Your task to perform on an android device: open app "Google Photos" (install if not already installed) Image 0: 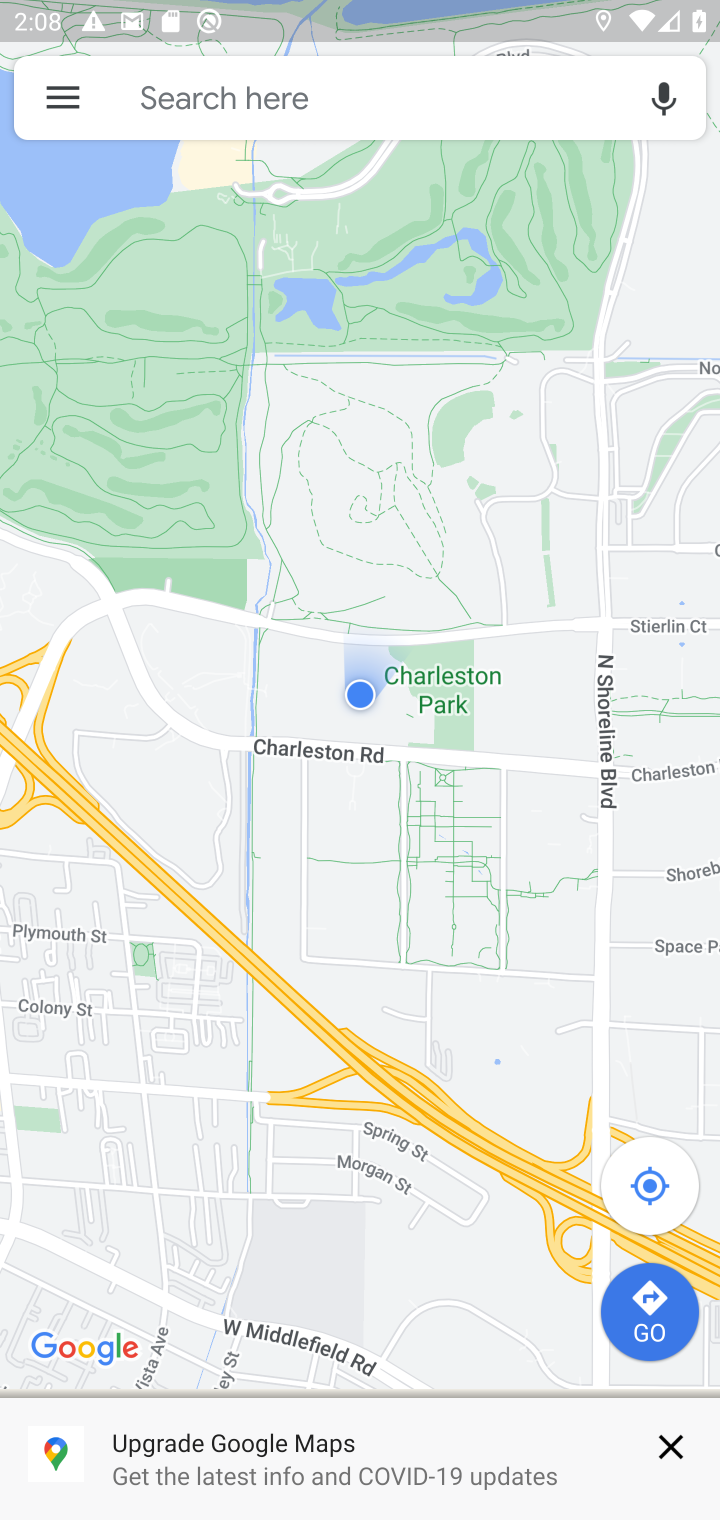
Step 0: press home button
Your task to perform on an android device: open app "Google Photos" (install if not already installed) Image 1: 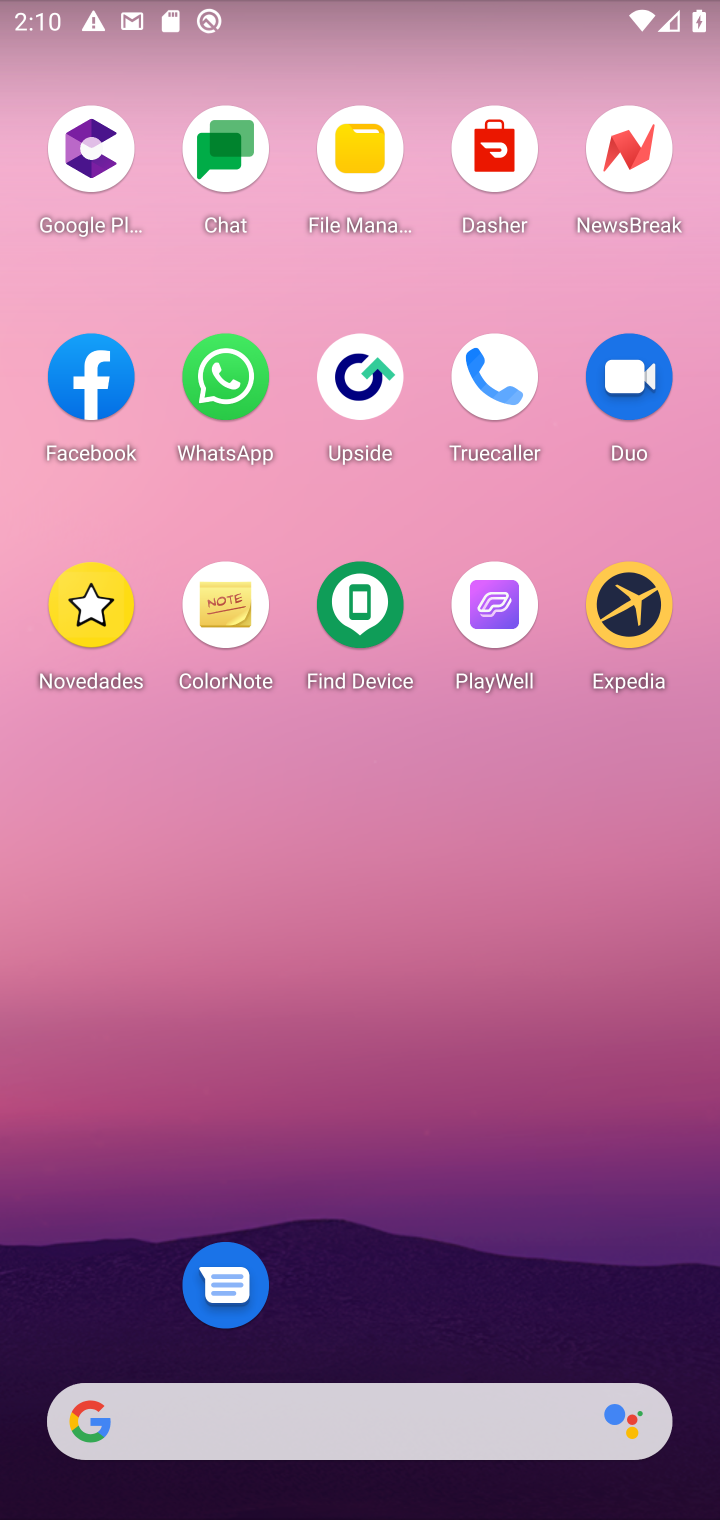
Step 1: drag from (501, 1223) to (399, 477)
Your task to perform on an android device: open app "Google Photos" (install if not already installed) Image 2: 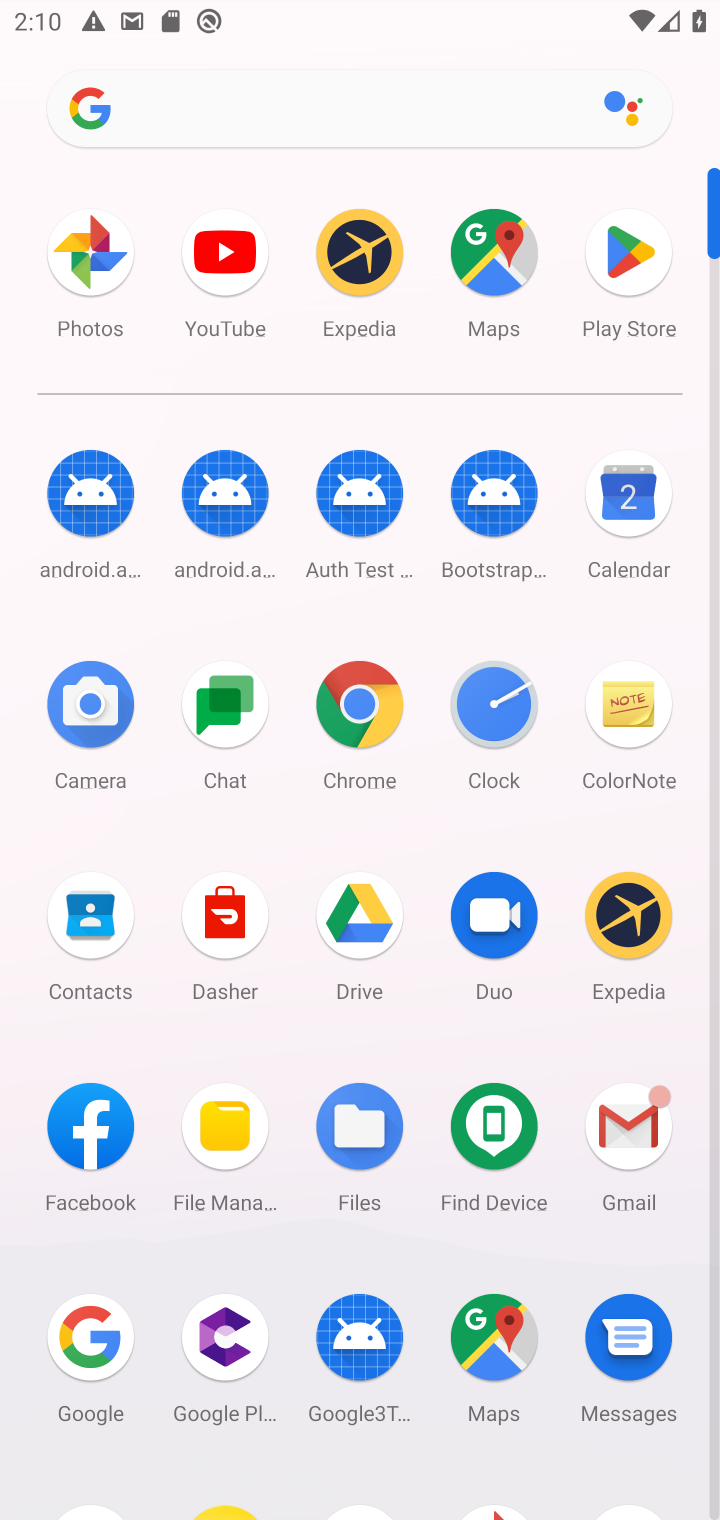
Step 2: click (630, 244)
Your task to perform on an android device: open app "Google Photos" (install if not already installed) Image 3: 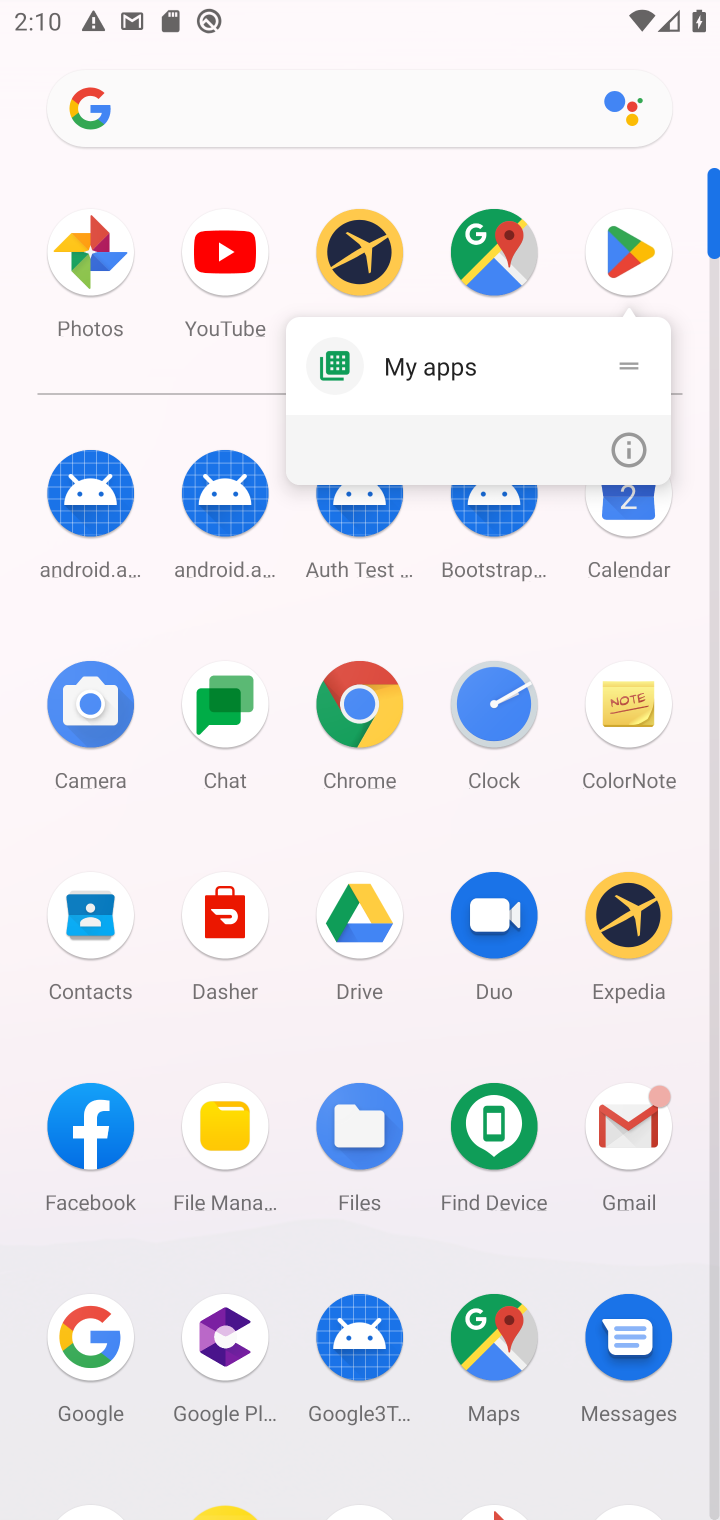
Step 3: click (630, 244)
Your task to perform on an android device: open app "Google Photos" (install if not already installed) Image 4: 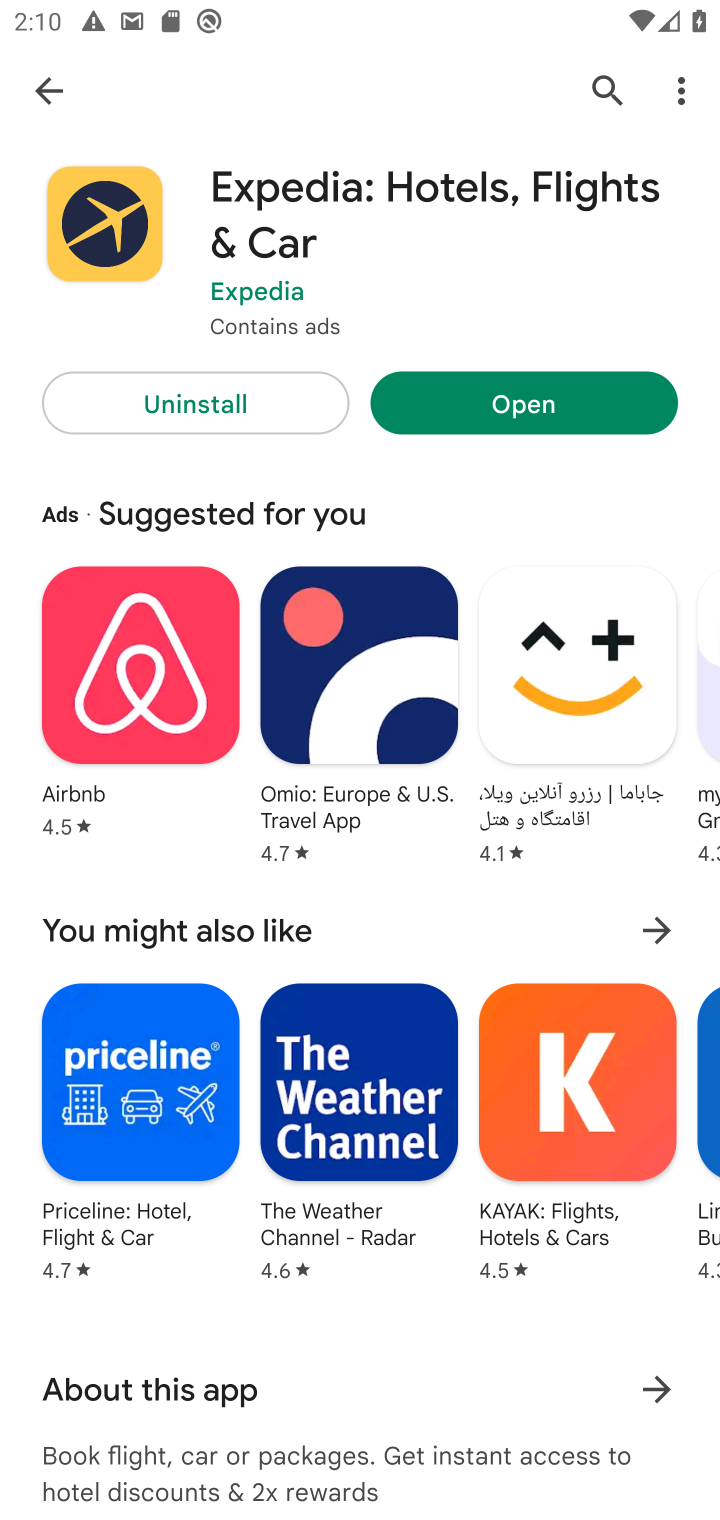
Step 4: click (626, 105)
Your task to perform on an android device: open app "Google Photos" (install if not already installed) Image 5: 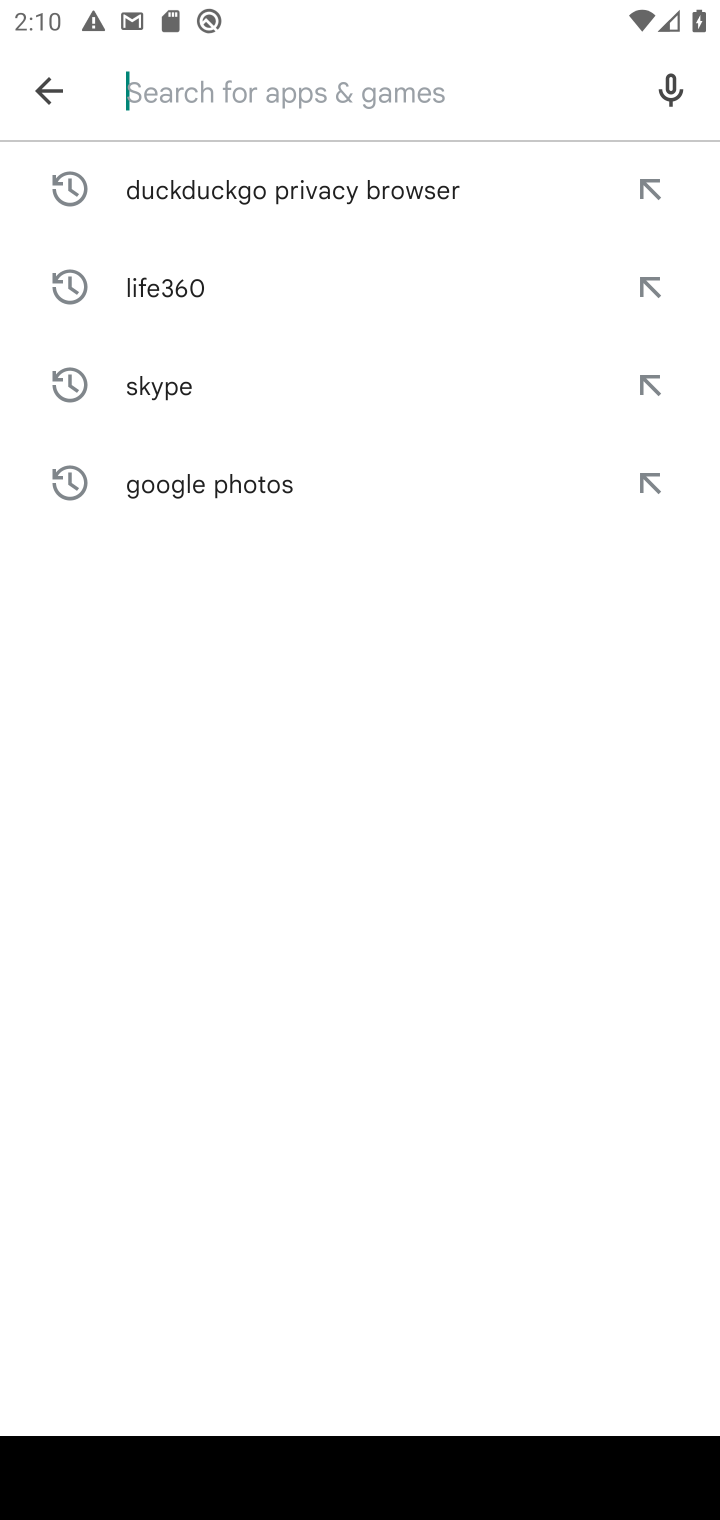
Step 5: click (451, 105)
Your task to perform on an android device: open app "Google Photos" (install if not already installed) Image 6: 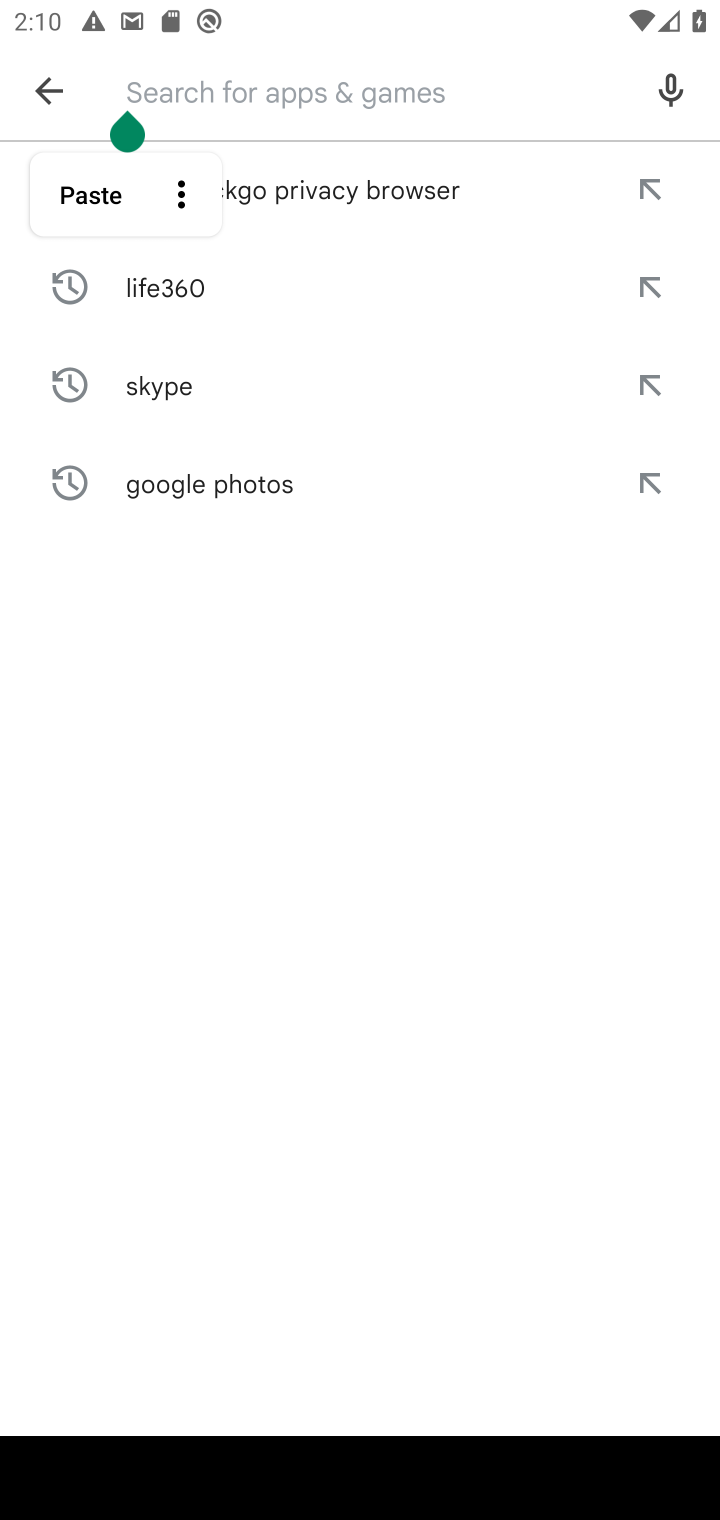
Step 6: type "Google Photos"
Your task to perform on an android device: open app "Google Photos" (install if not already installed) Image 7: 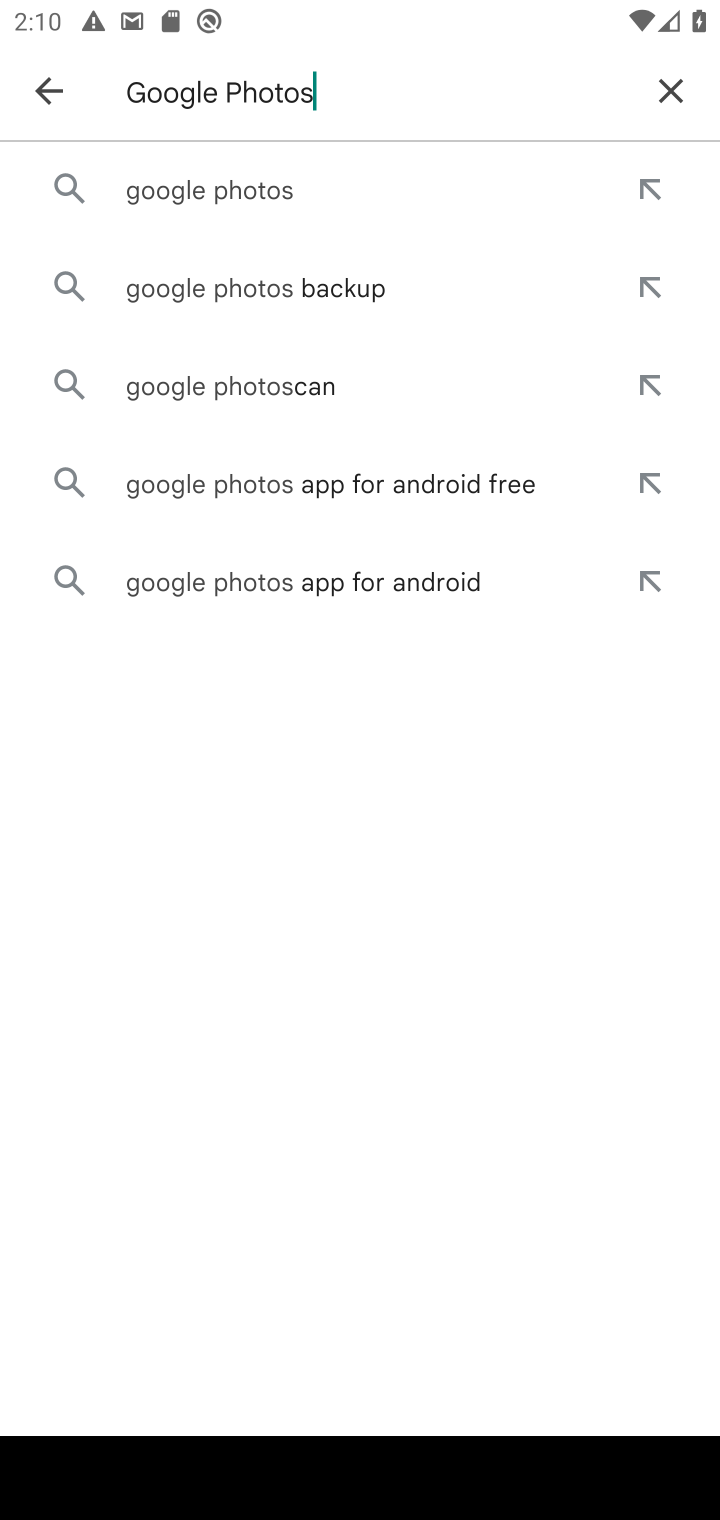
Step 7: type ""
Your task to perform on an android device: open app "Google Photos" (install if not already installed) Image 8: 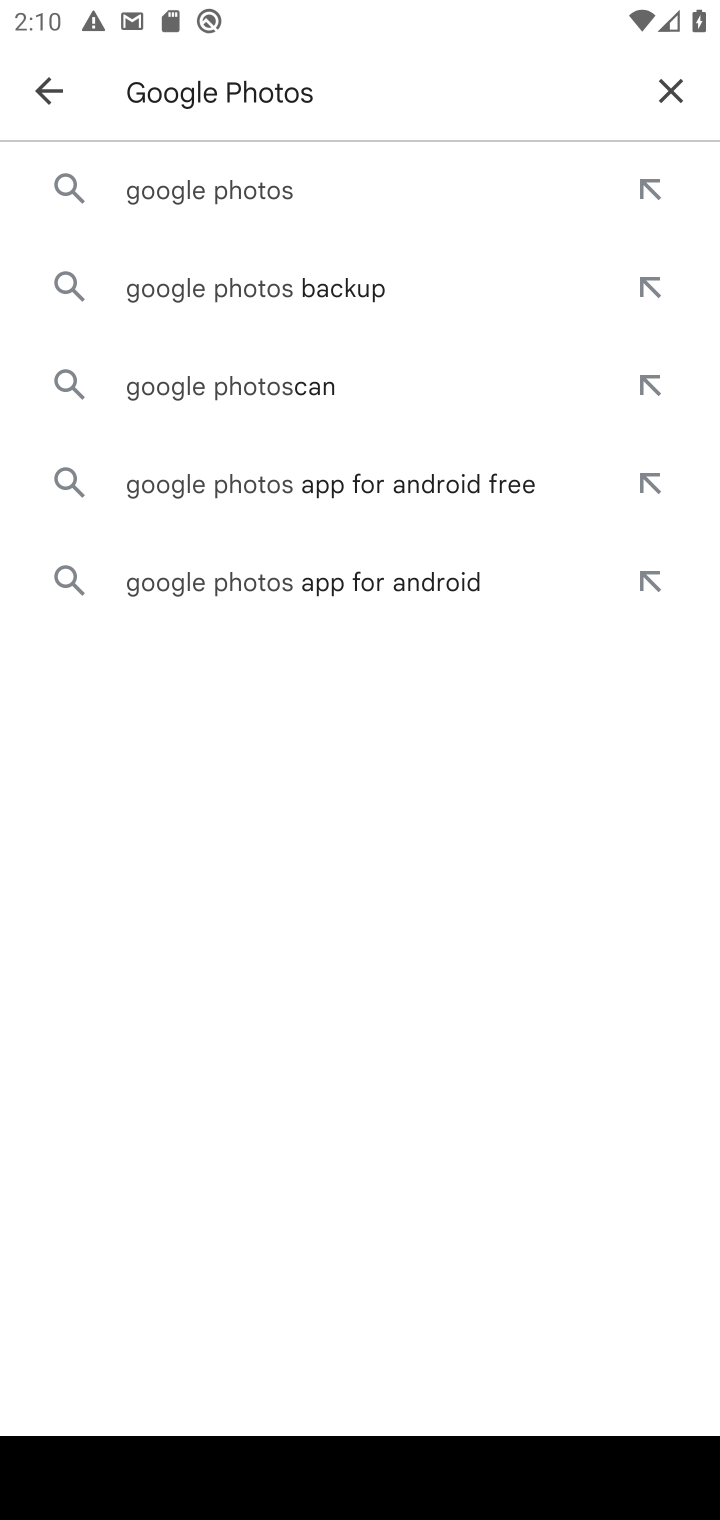
Step 8: click (160, 181)
Your task to perform on an android device: open app "Google Photos" (install if not already installed) Image 9: 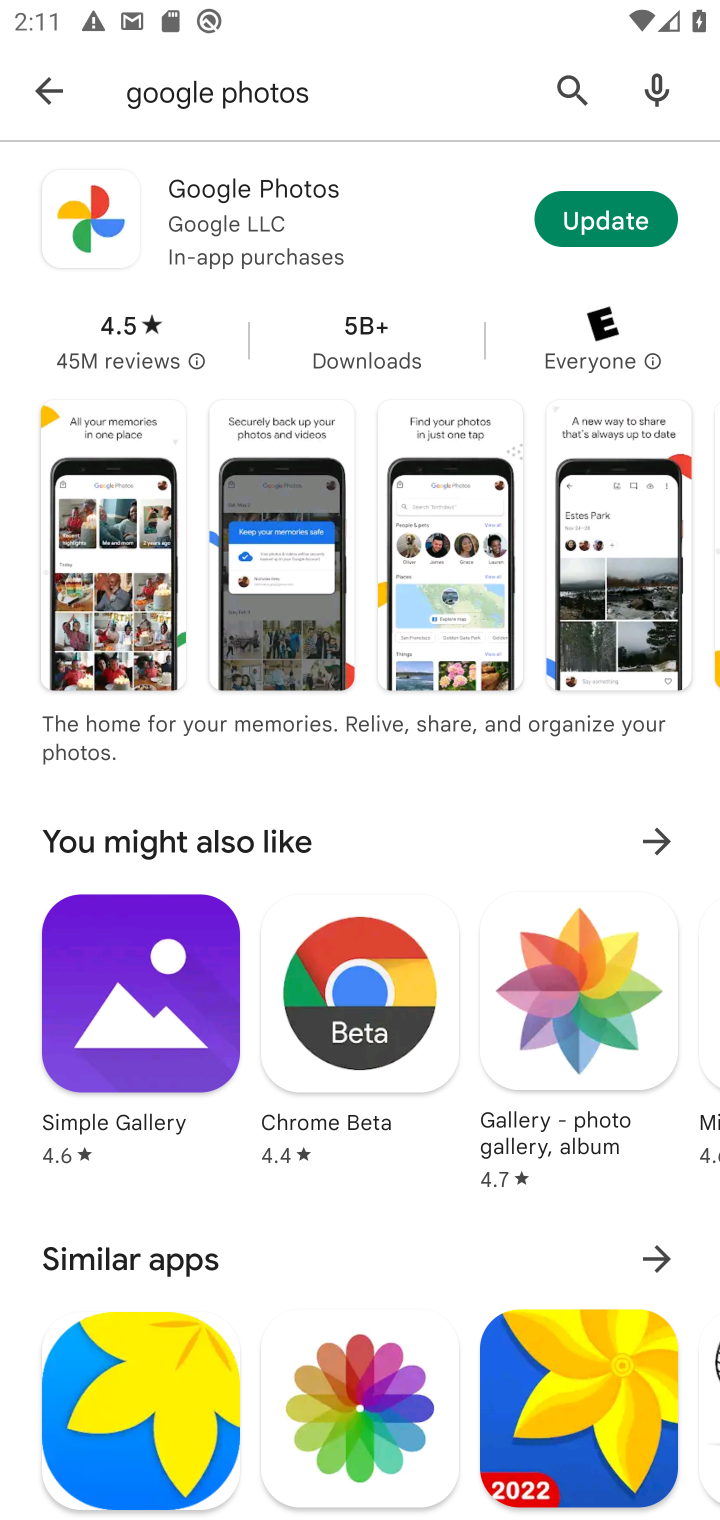
Step 9: click (279, 185)
Your task to perform on an android device: open app "Google Photos" (install if not already installed) Image 10: 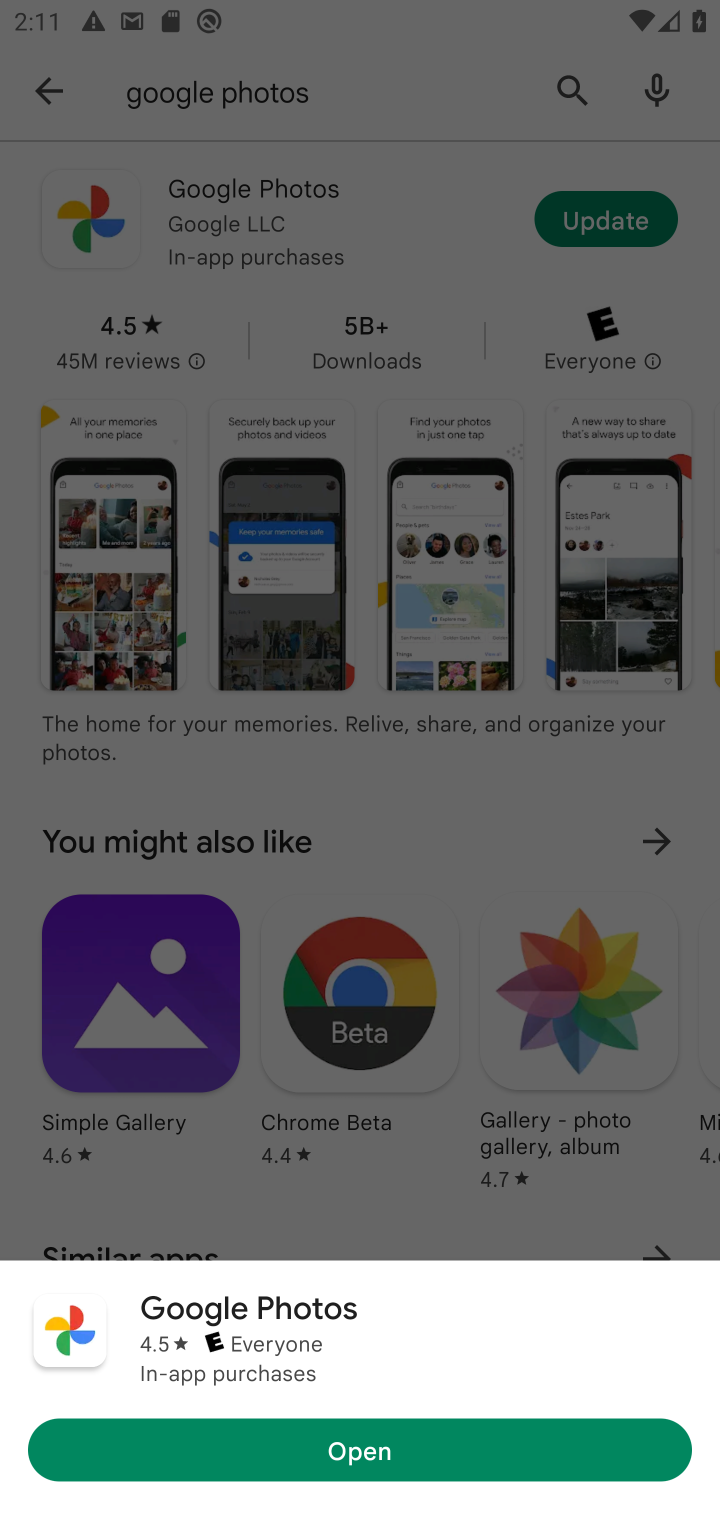
Step 10: task complete